Your task to perform on an android device: turn on location history Image 0: 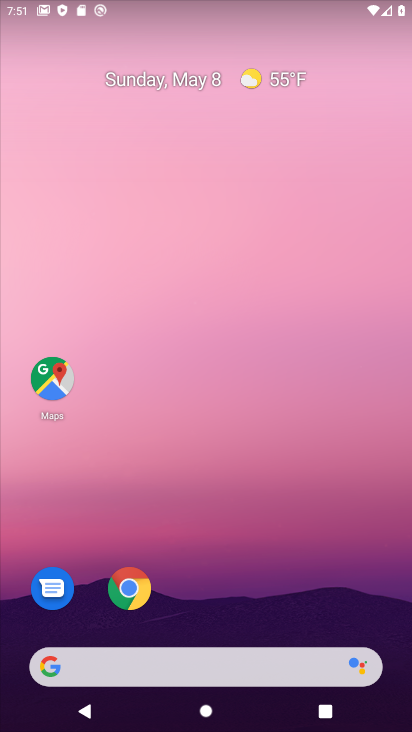
Step 0: drag from (318, 626) to (208, 0)
Your task to perform on an android device: turn on location history Image 1: 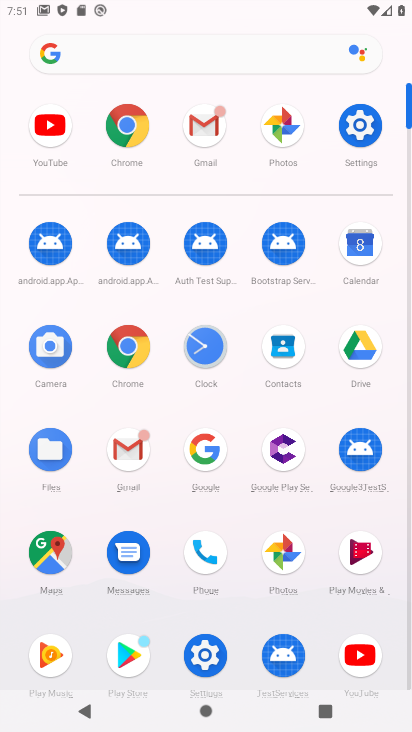
Step 1: click (361, 134)
Your task to perform on an android device: turn on location history Image 2: 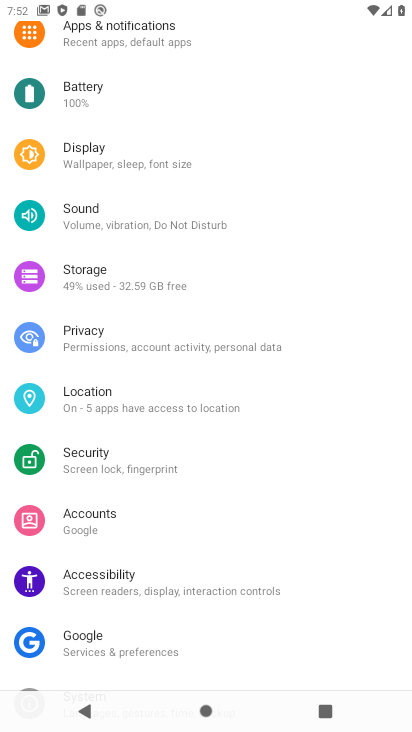
Step 2: click (127, 412)
Your task to perform on an android device: turn on location history Image 3: 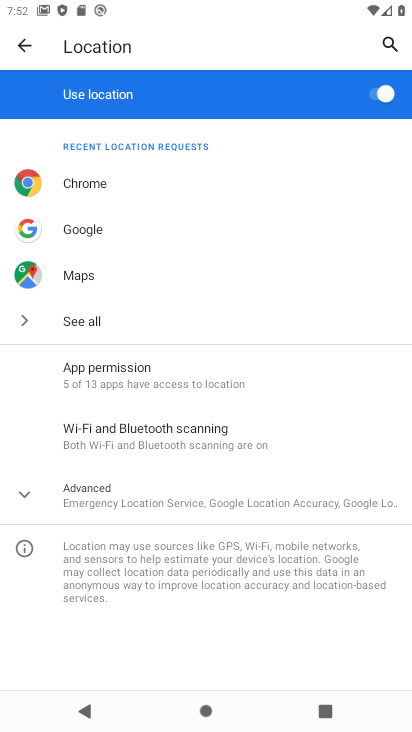
Step 3: click (19, 493)
Your task to perform on an android device: turn on location history Image 4: 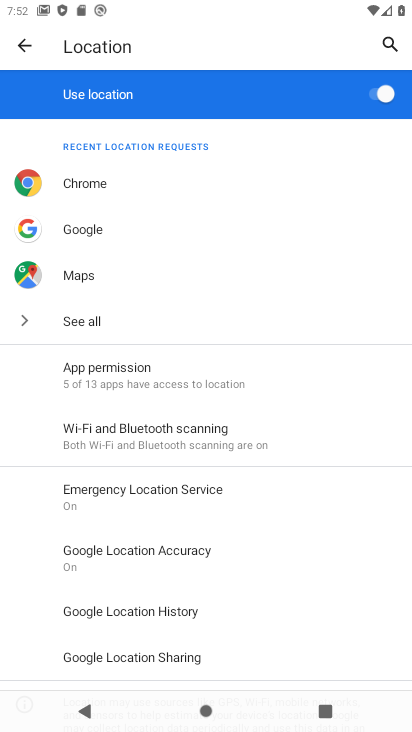
Step 4: click (197, 622)
Your task to perform on an android device: turn on location history Image 5: 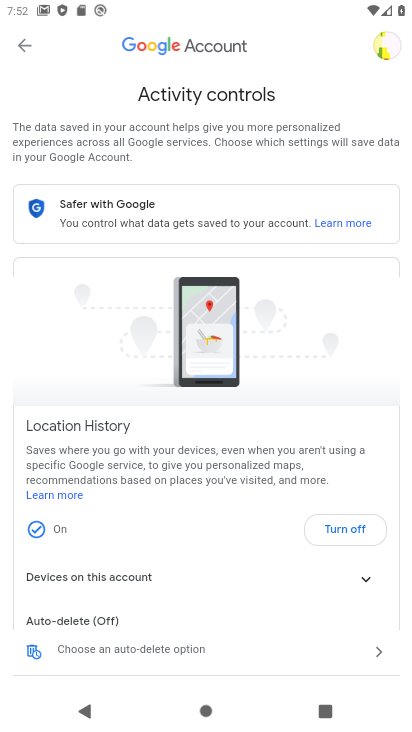
Step 5: click (338, 524)
Your task to perform on an android device: turn on location history Image 6: 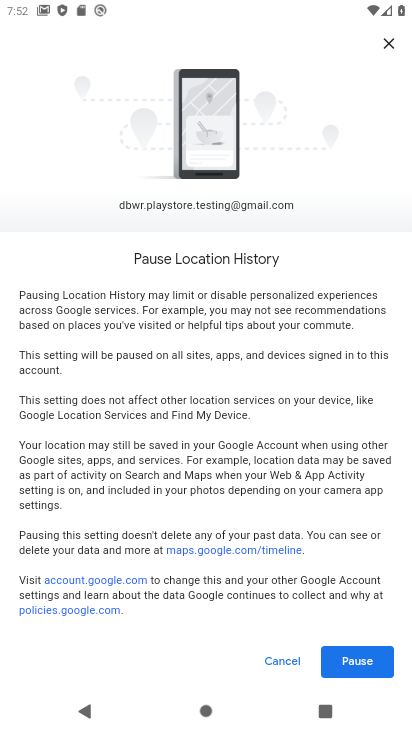
Step 6: task complete